Your task to perform on an android device: Go to CNN.com Image 0: 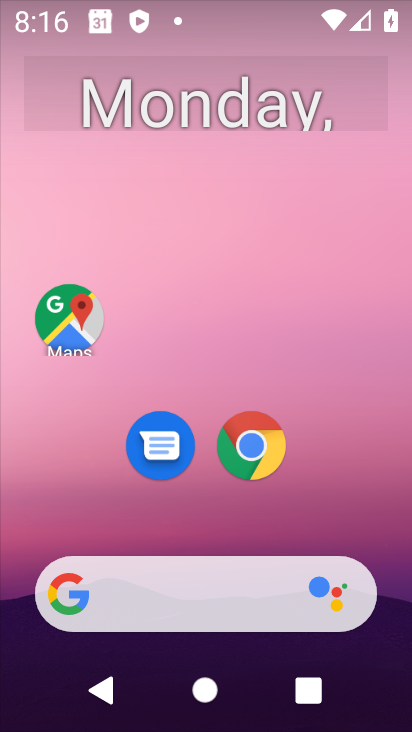
Step 0: click (248, 456)
Your task to perform on an android device: Go to CNN.com Image 1: 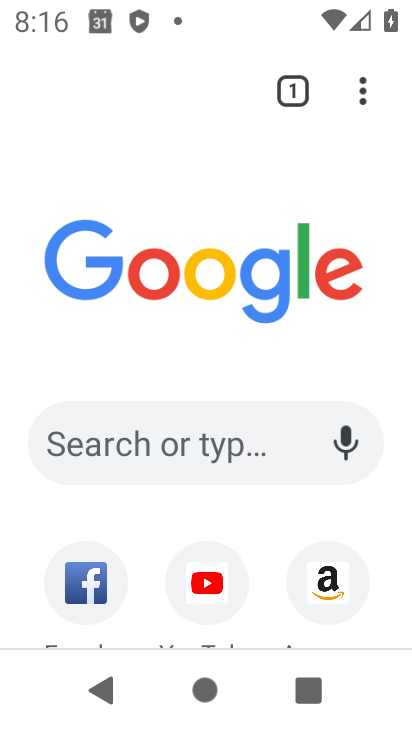
Step 1: drag from (262, 531) to (262, 78)
Your task to perform on an android device: Go to CNN.com Image 2: 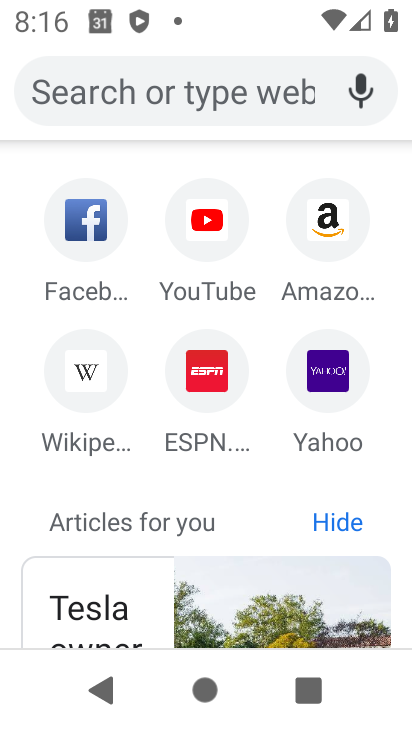
Step 2: click (139, 93)
Your task to perform on an android device: Go to CNN.com Image 3: 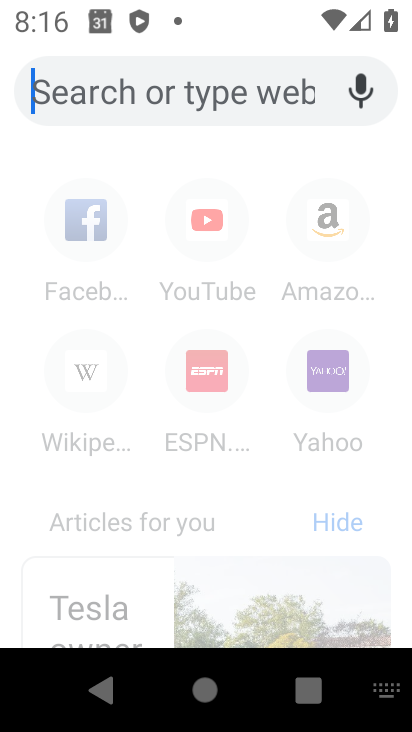
Step 3: type "cnn.com"
Your task to perform on an android device: Go to CNN.com Image 4: 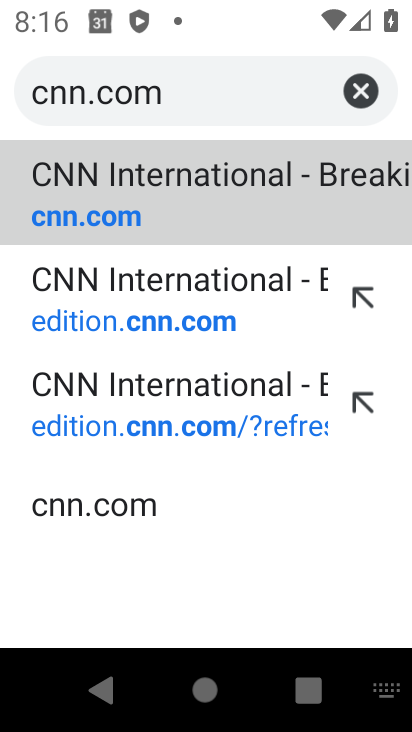
Step 4: click (166, 207)
Your task to perform on an android device: Go to CNN.com Image 5: 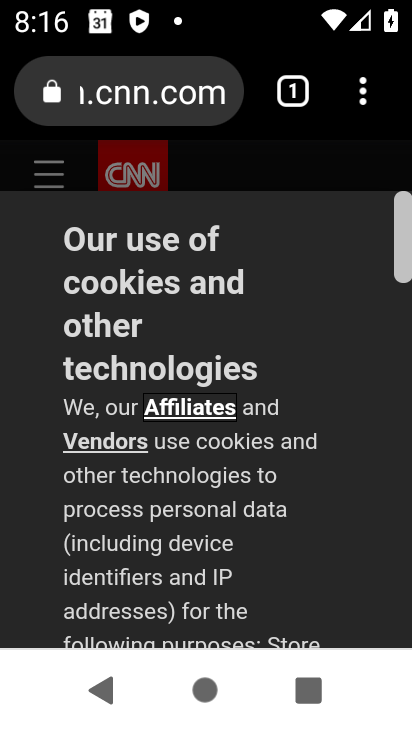
Step 5: drag from (227, 592) to (241, 168)
Your task to perform on an android device: Go to CNN.com Image 6: 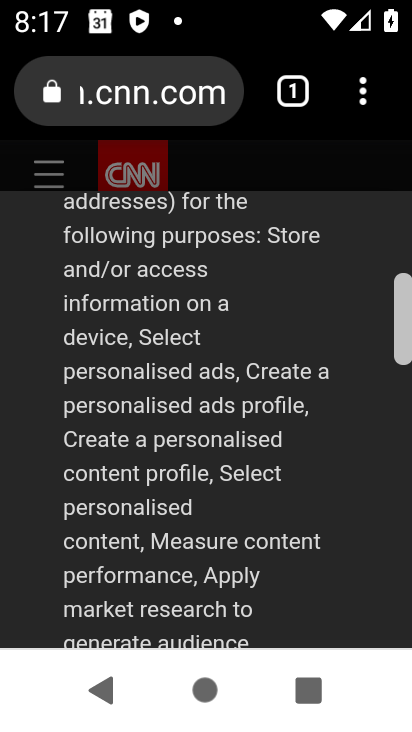
Step 6: drag from (199, 585) to (196, 200)
Your task to perform on an android device: Go to CNN.com Image 7: 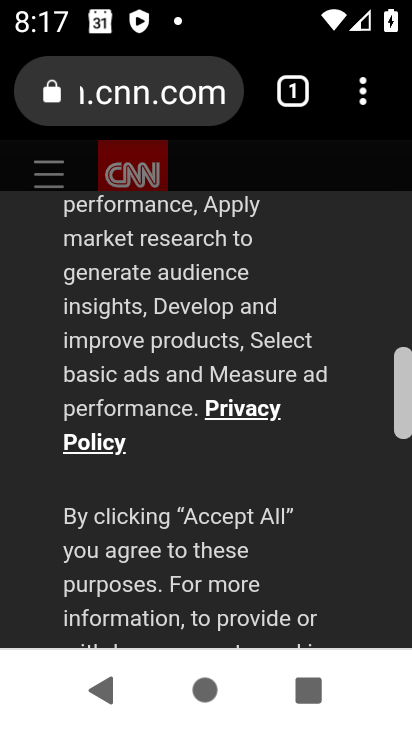
Step 7: drag from (218, 582) to (218, 211)
Your task to perform on an android device: Go to CNN.com Image 8: 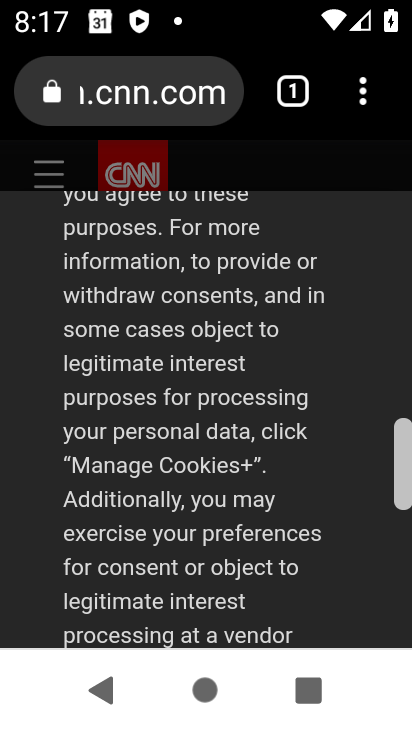
Step 8: drag from (216, 575) to (216, 189)
Your task to perform on an android device: Go to CNN.com Image 9: 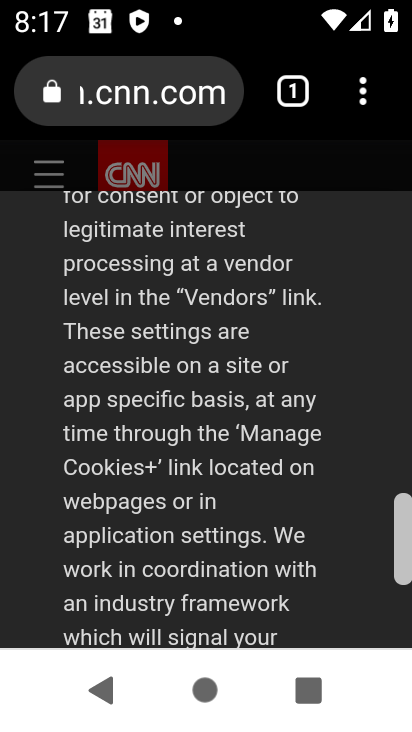
Step 9: drag from (226, 577) to (215, 124)
Your task to perform on an android device: Go to CNN.com Image 10: 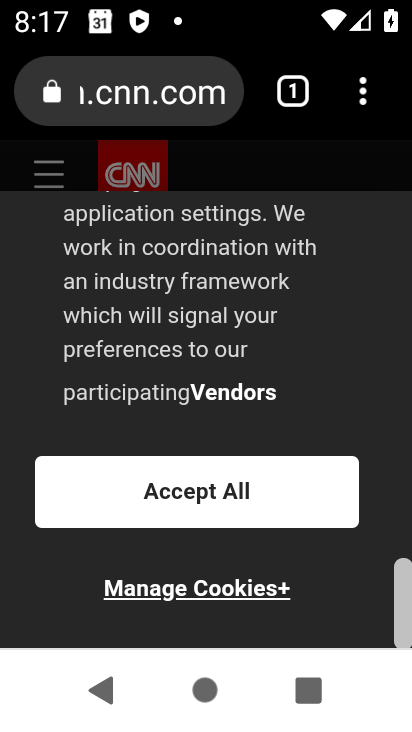
Step 10: click (195, 491)
Your task to perform on an android device: Go to CNN.com Image 11: 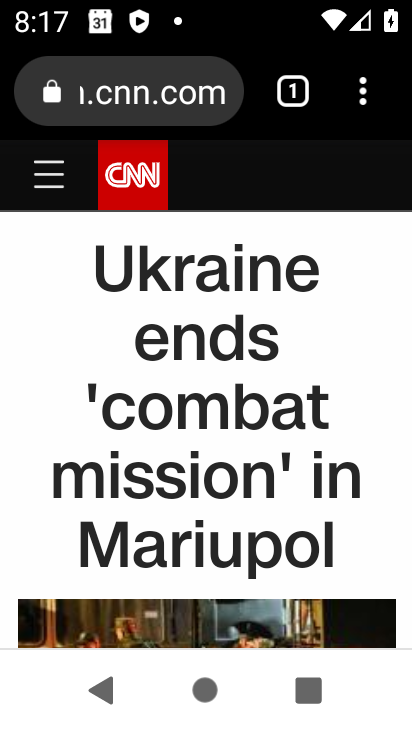
Step 11: task complete